Your task to perform on an android device: Open internet settings Image 0: 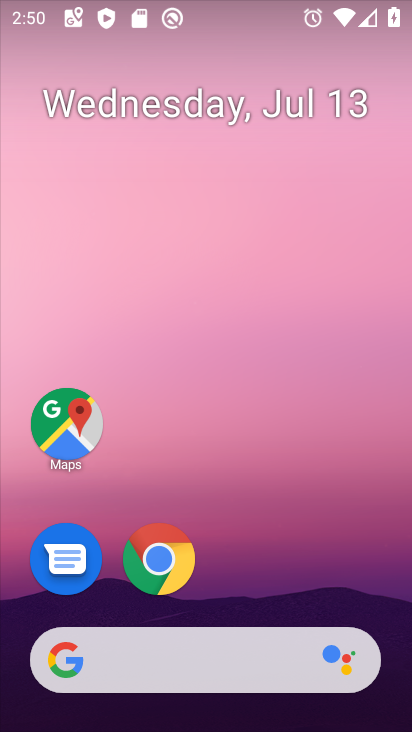
Step 0: drag from (356, 581) to (337, 167)
Your task to perform on an android device: Open internet settings Image 1: 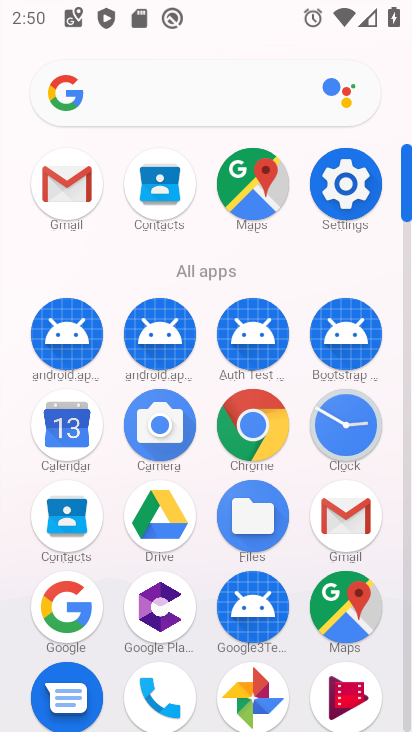
Step 1: click (333, 193)
Your task to perform on an android device: Open internet settings Image 2: 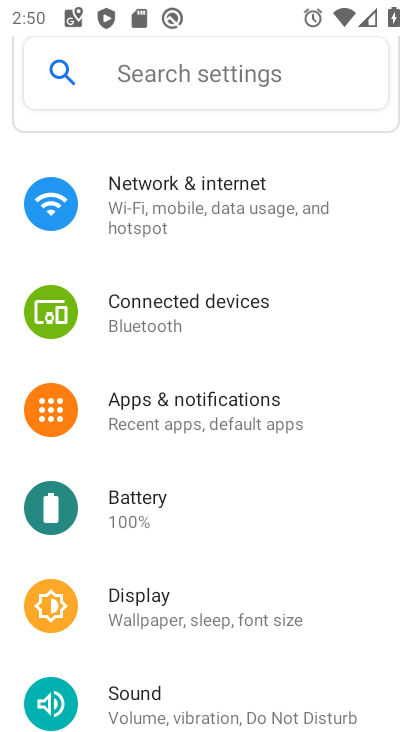
Step 2: drag from (367, 433) to (366, 279)
Your task to perform on an android device: Open internet settings Image 3: 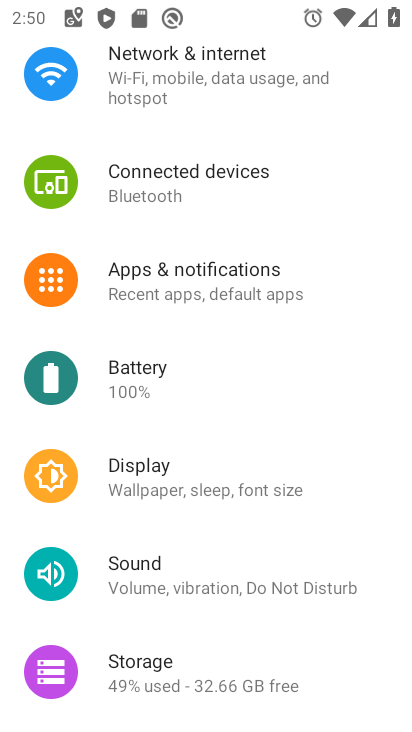
Step 3: drag from (358, 395) to (360, 227)
Your task to perform on an android device: Open internet settings Image 4: 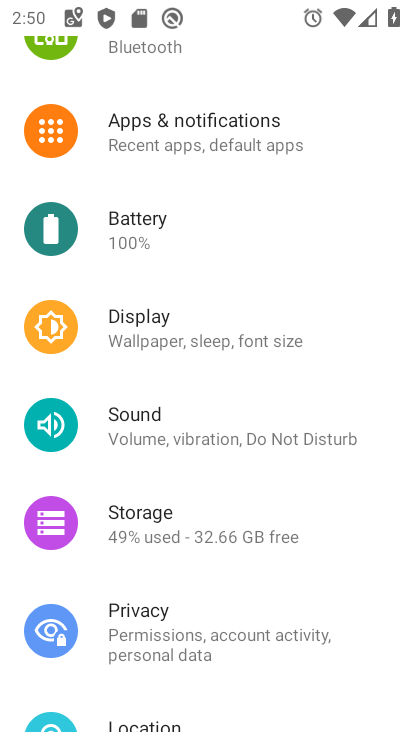
Step 4: drag from (360, 374) to (360, 269)
Your task to perform on an android device: Open internet settings Image 5: 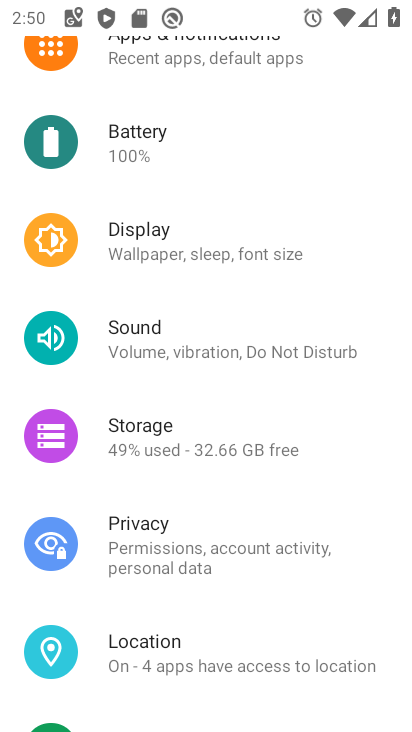
Step 5: drag from (354, 436) to (358, 266)
Your task to perform on an android device: Open internet settings Image 6: 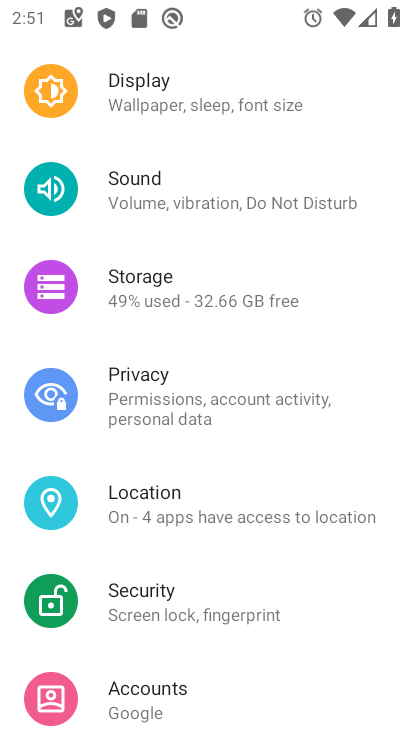
Step 6: drag from (363, 425) to (363, 312)
Your task to perform on an android device: Open internet settings Image 7: 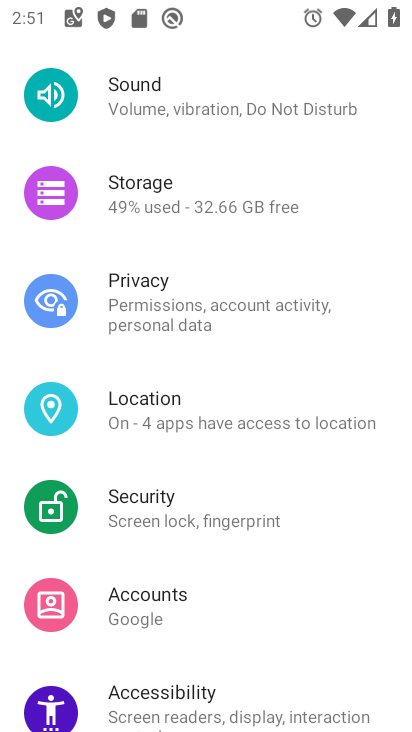
Step 7: drag from (356, 463) to (360, 255)
Your task to perform on an android device: Open internet settings Image 8: 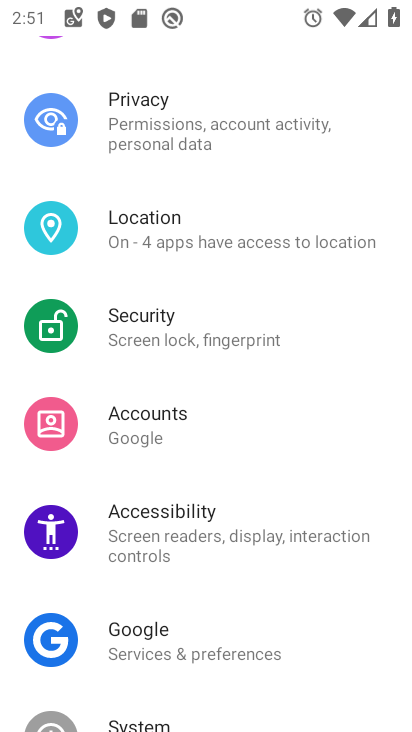
Step 8: drag from (334, 409) to (333, 192)
Your task to perform on an android device: Open internet settings Image 9: 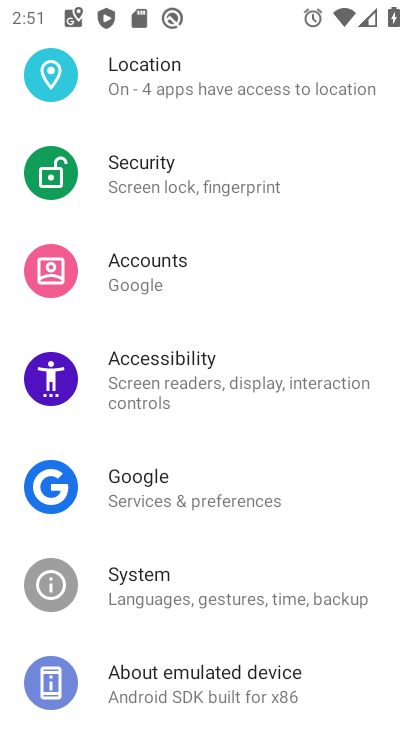
Step 9: drag from (341, 167) to (347, 327)
Your task to perform on an android device: Open internet settings Image 10: 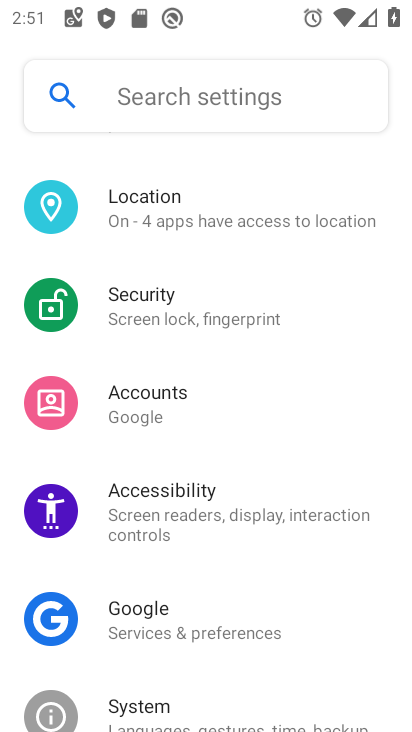
Step 10: drag from (350, 198) to (352, 333)
Your task to perform on an android device: Open internet settings Image 11: 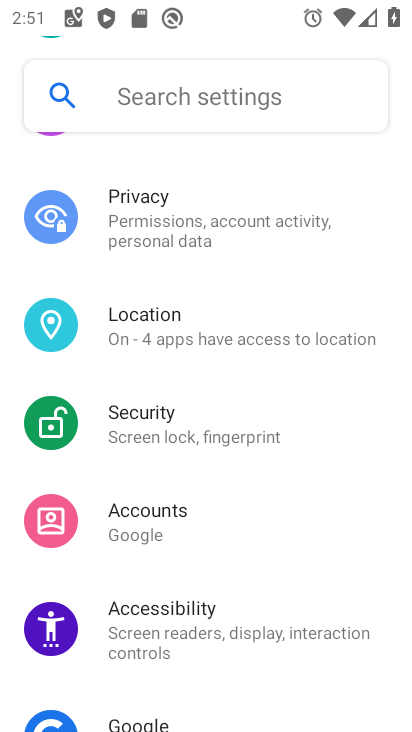
Step 11: drag from (367, 290) to (371, 423)
Your task to perform on an android device: Open internet settings Image 12: 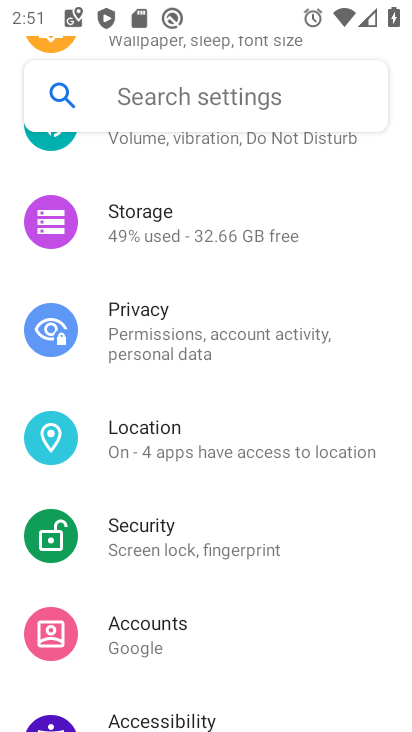
Step 12: drag from (370, 243) to (372, 371)
Your task to perform on an android device: Open internet settings Image 13: 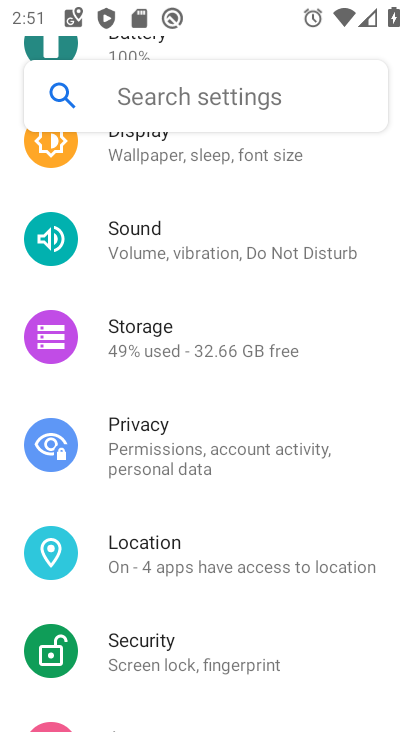
Step 13: drag from (377, 214) to (377, 391)
Your task to perform on an android device: Open internet settings Image 14: 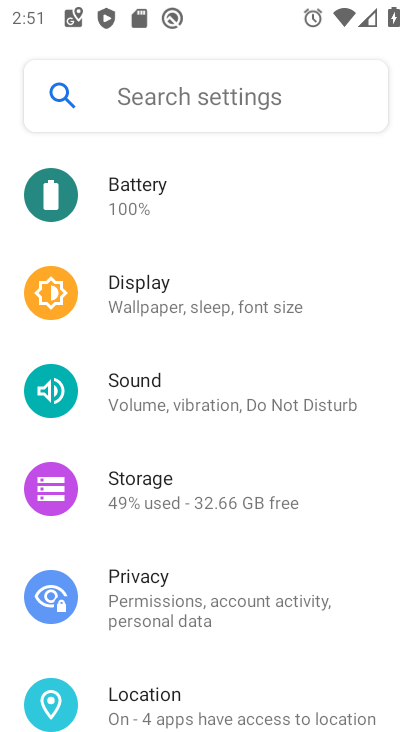
Step 14: drag from (355, 239) to (353, 436)
Your task to perform on an android device: Open internet settings Image 15: 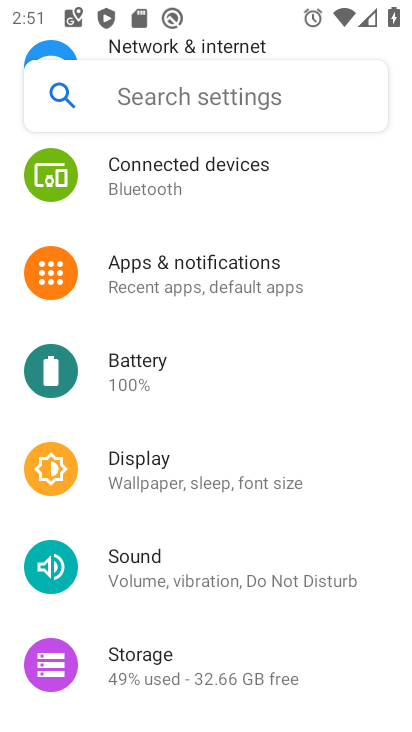
Step 15: drag from (347, 215) to (343, 402)
Your task to perform on an android device: Open internet settings Image 16: 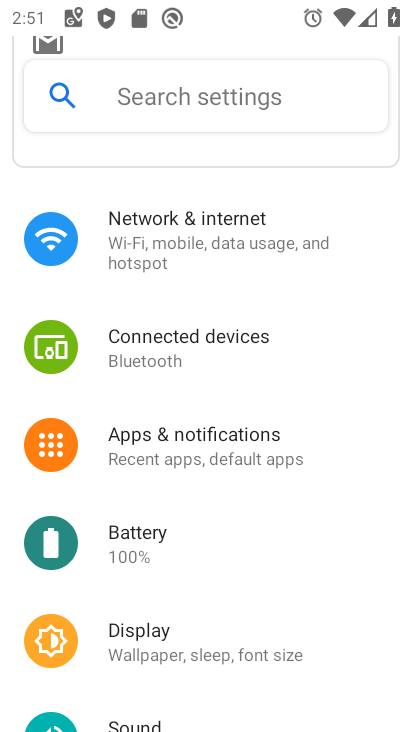
Step 16: drag from (350, 267) to (342, 380)
Your task to perform on an android device: Open internet settings Image 17: 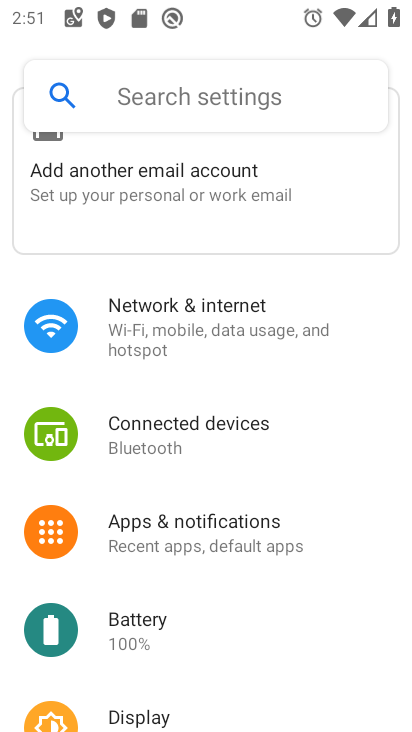
Step 17: click (350, 320)
Your task to perform on an android device: Open internet settings Image 18: 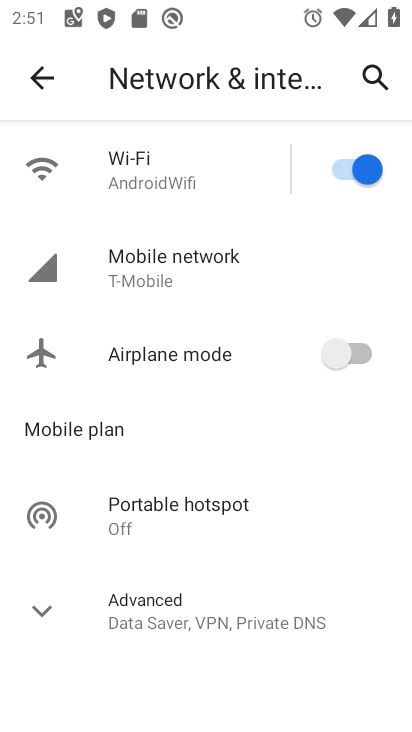
Step 18: task complete